Your task to perform on an android device: Go to sound settings Image 0: 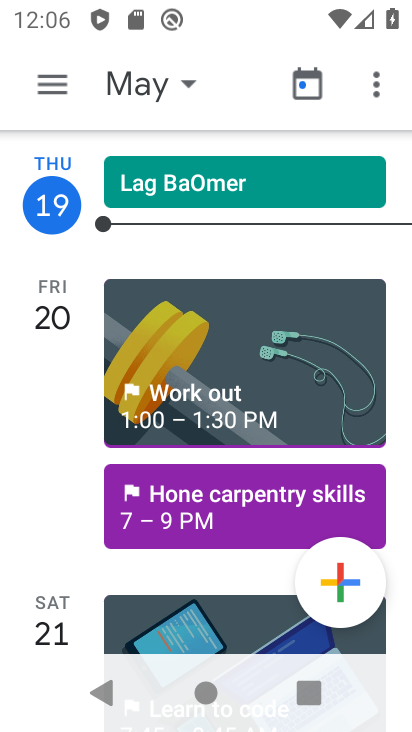
Step 0: press home button
Your task to perform on an android device: Go to sound settings Image 1: 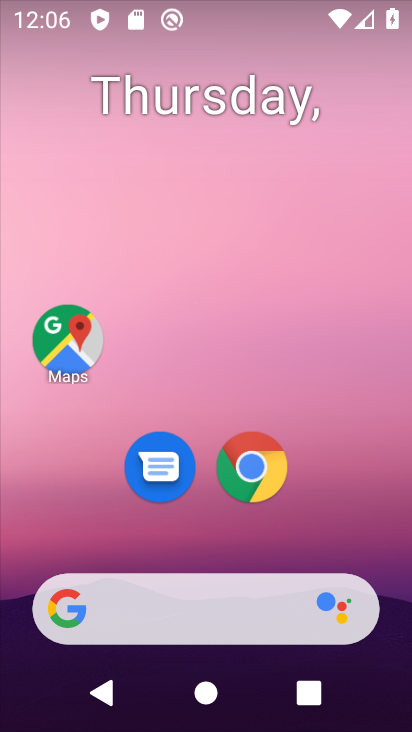
Step 1: drag from (394, 661) to (383, 213)
Your task to perform on an android device: Go to sound settings Image 2: 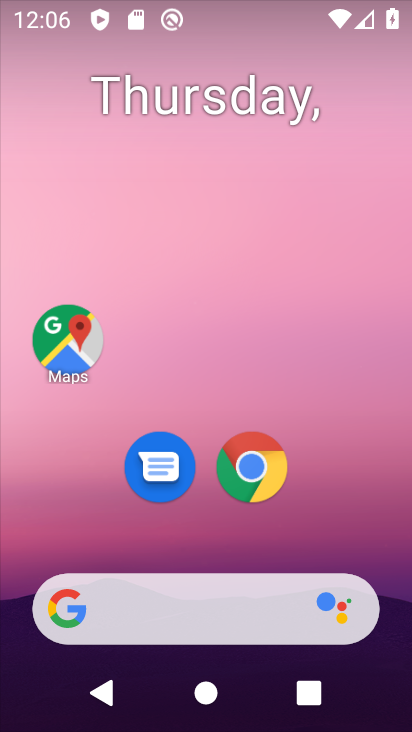
Step 2: drag from (401, 552) to (392, 256)
Your task to perform on an android device: Go to sound settings Image 3: 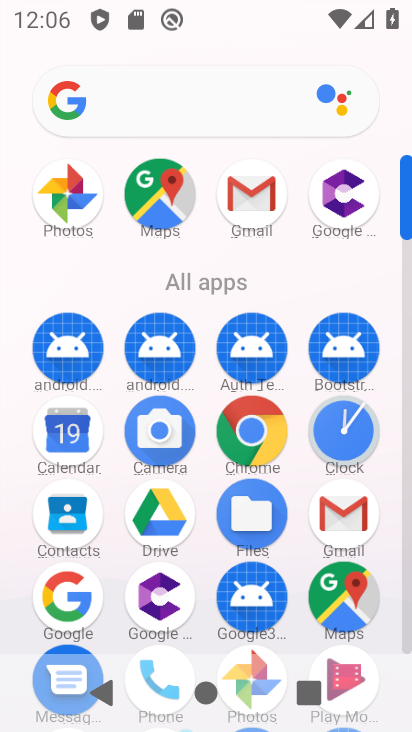
Step 3: drag from (402, 164) to (402, 89)
Your task to perform on an android device: Go to sound settings Image 4: 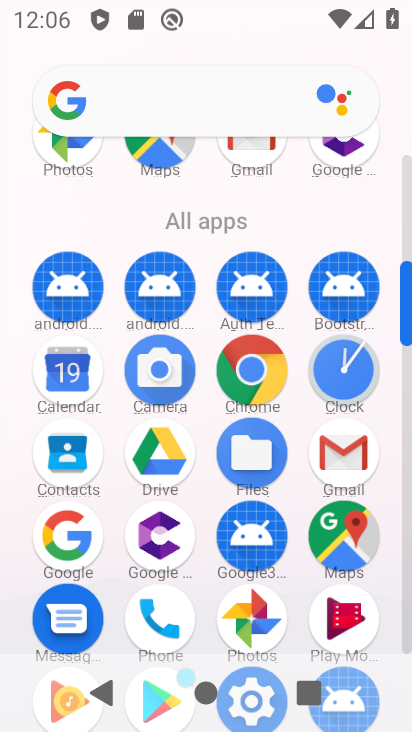
Step 4: click (394, 188)
Your task to perform on an android device: Go to sound settings Image 5: 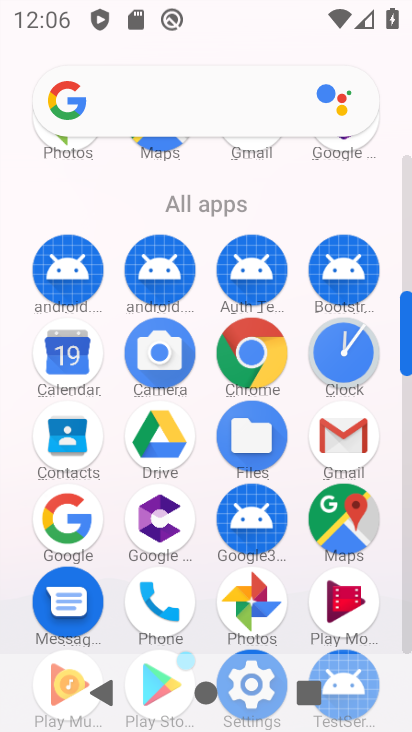
Step 5: drag from (405, 302) to (406, 237)
Your task to perform on an android device: Go to sound settings Image 6: 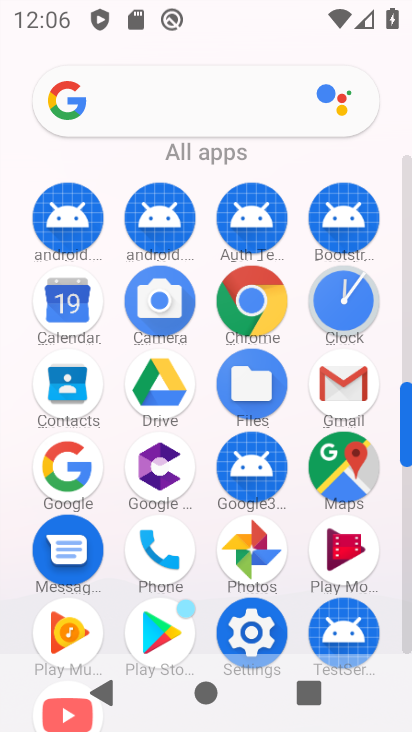
Step 6: click (263, 615)
Your task to perform on an android device: Go to sound settings Image 7: 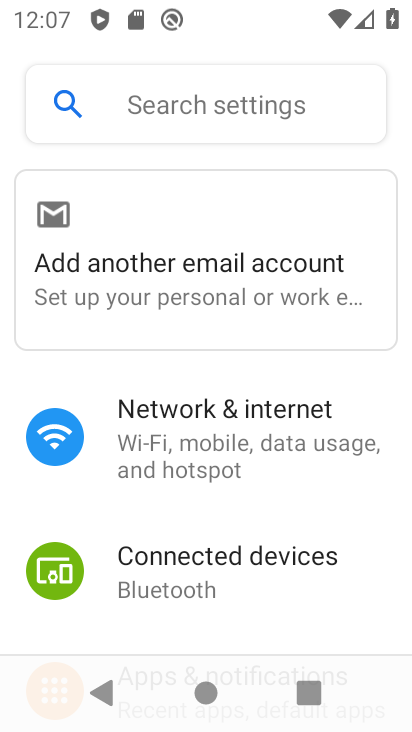
Step 7: drag from (338, 531) to (340, 282)
Your task to perform on an android device: Go to sound settings Image 8: 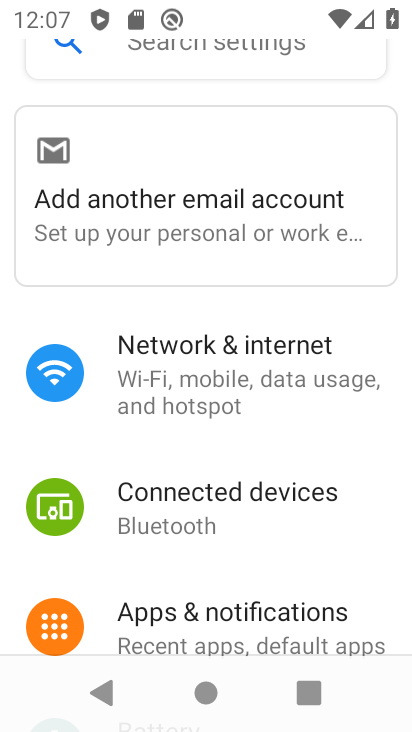
Step 8: drag from (347, 543) to (362, 292)
Your task to perform on an android device: Go to sound settings Image 9: 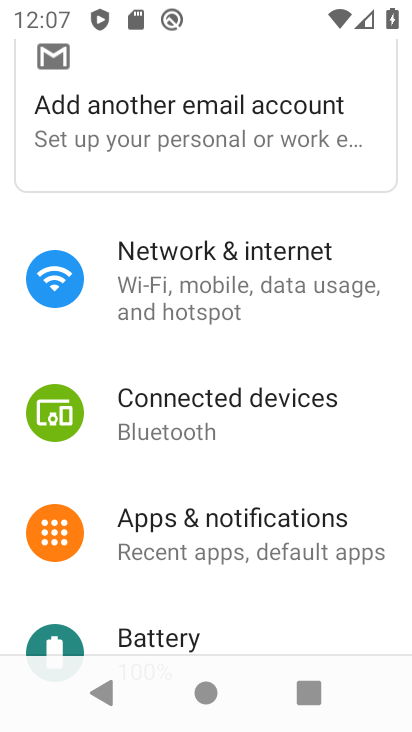
Step 9: drag from (321, 611) to (336, 307)
Your task to perform on an android device: Go to sound settings Image 10: 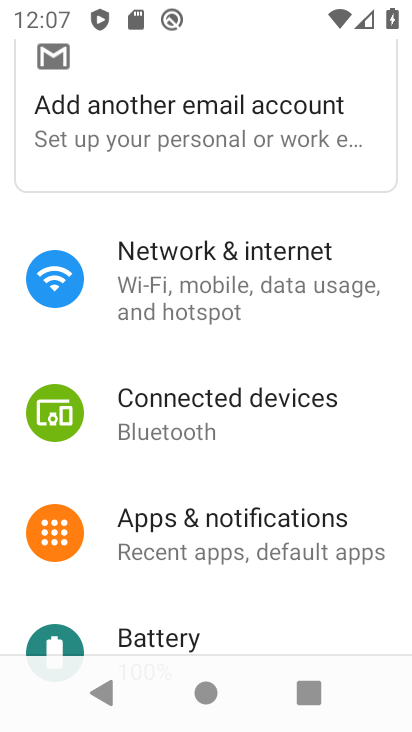
Step 10: drag from (376, 625) to (379, 391)
Your task to perform on an android device: Go to sound settings Image 11: 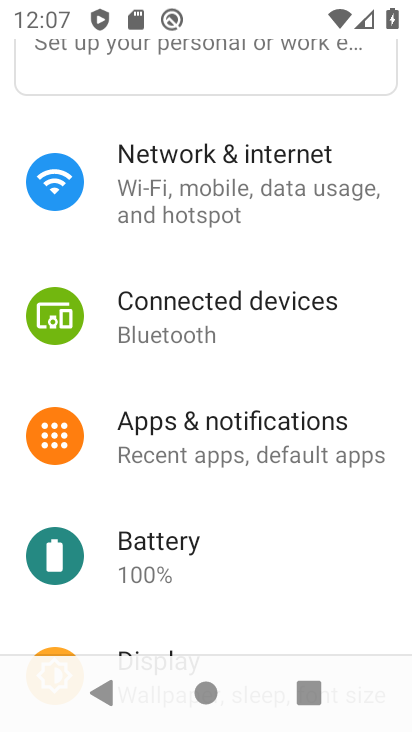
Step 11: drag from (358, 601) to (364, 309)
Your task to perform on an android device: Go to sound settings Image 12: 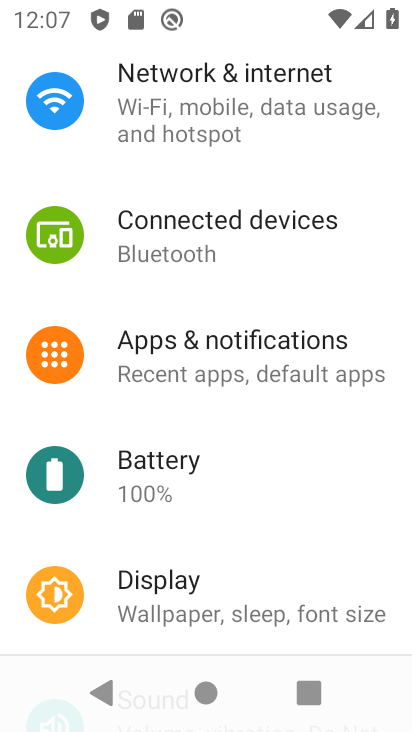
Step 12: drag from (363, 575) to (336, 379)
Your task to perform on an android device: Go to sound settings Image 13: 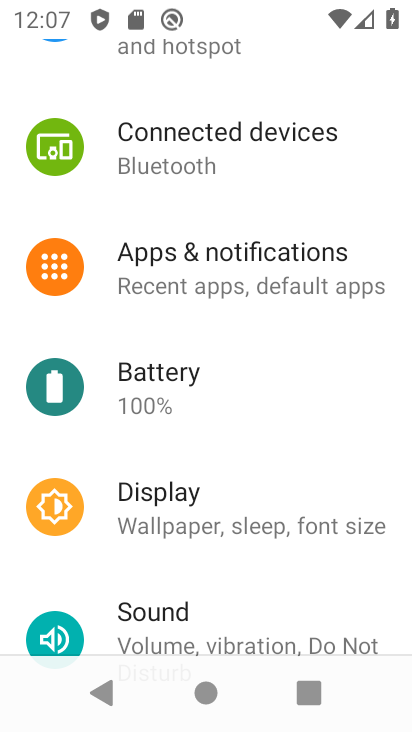
Step 13: drag from (384, 559) to (404, 307)
Your task to perform on an android device: Go to sound settings Image 14: 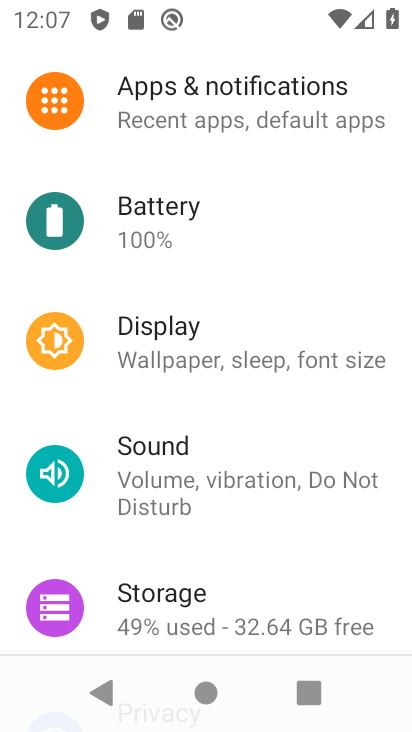
Step 14: click (135, 619)
Your task to perform on an android device: Go to sound settings Image 15: 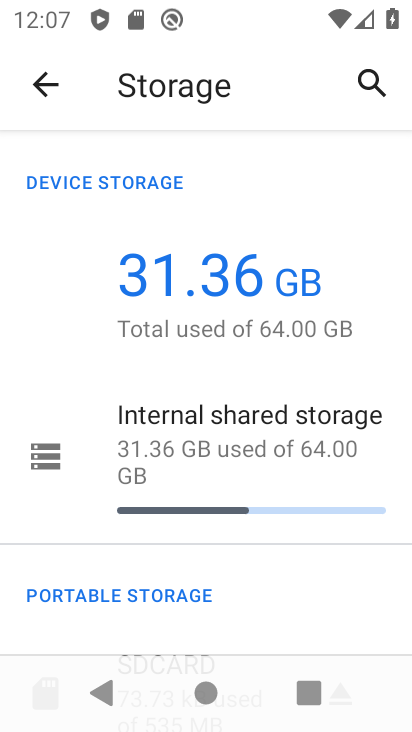
Step 15: click (41, 82)
Your task to perform on an android device: Go to sound settings Image 16: 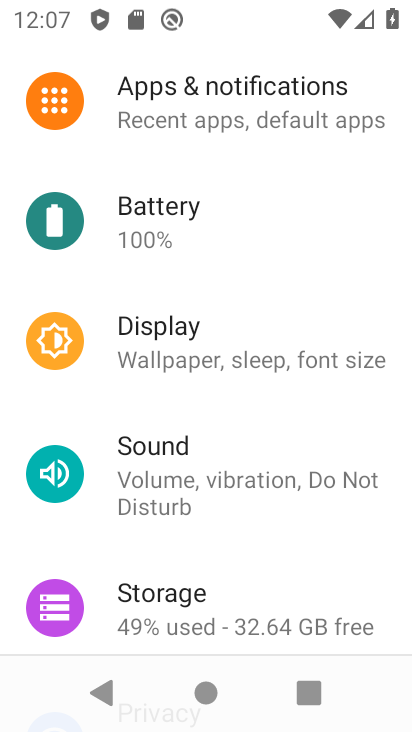
Step 16: click (177, 477)
Your task to perform on an android device: Go to sound settings Image 17: 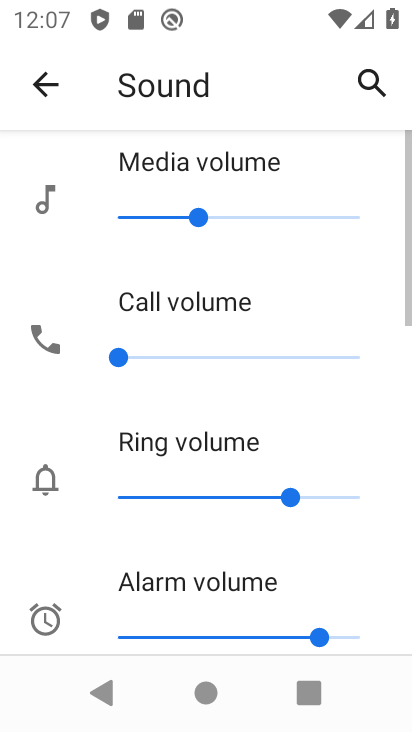
Step 17: click (360, 361)
Your task to perform on an android device: Go to sound settings Image 18: 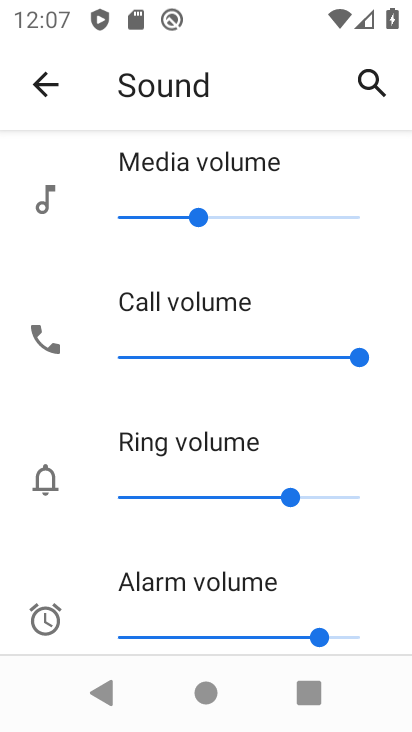
Step 18: task complete